Your task to perform on an android device: turn on airplane mode Image 0: 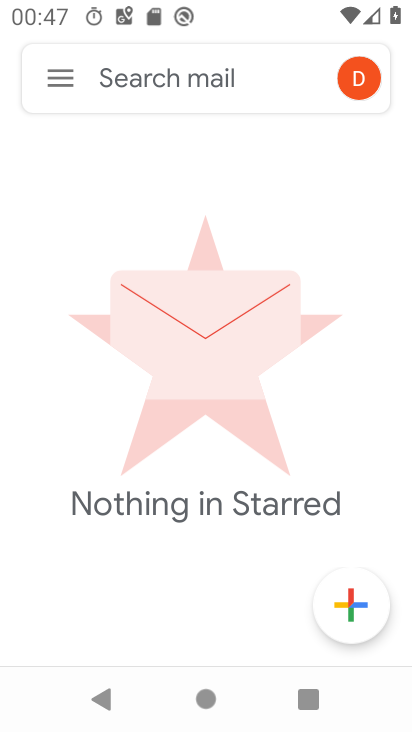
Step 0: press back button
Your task to perform on an android device: turn on airplane mode Image 1: 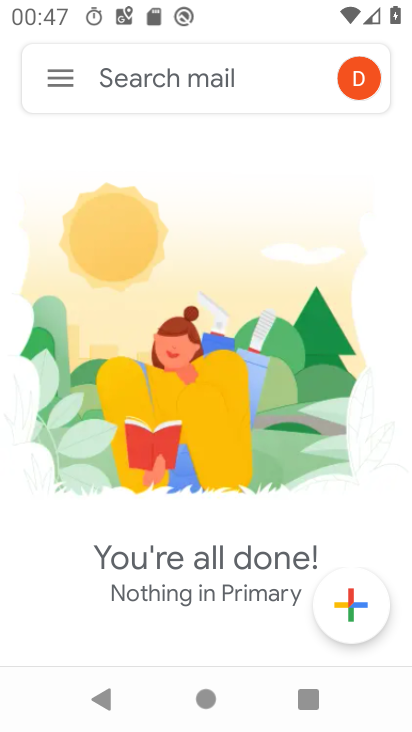
Step 1: press home button
Your task to perform on an android device: turn on airplane mode Image 2: 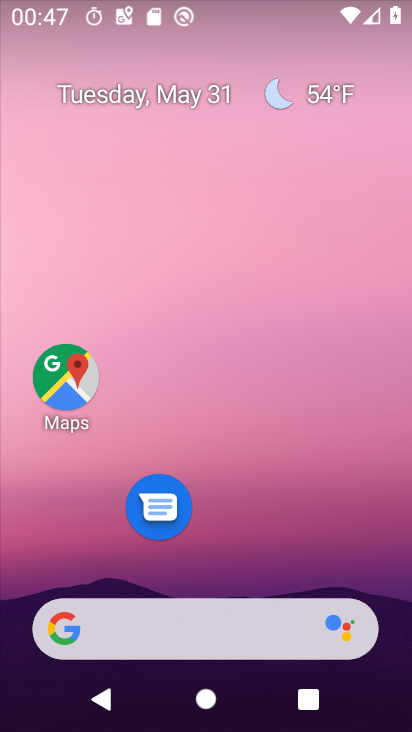
Step 2: drag from (247, 542) to (213, 46)
Your task to perform on an android device: turn on airplane mode Image 3: 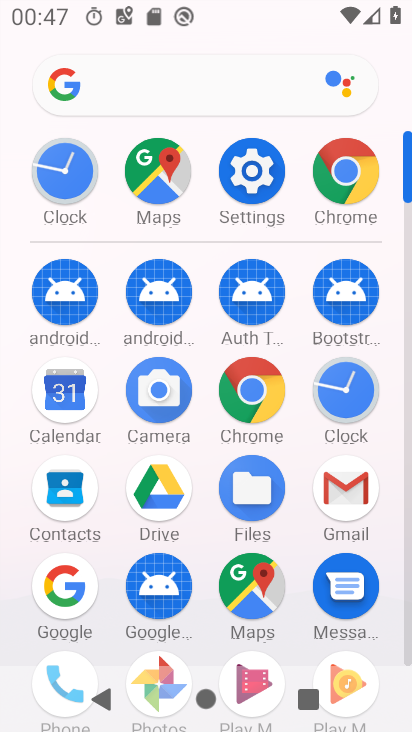
Step 3: drag from (284, 546) to (389, 6)
Your task to perform on an android device: turn on airplane mode Image 4: 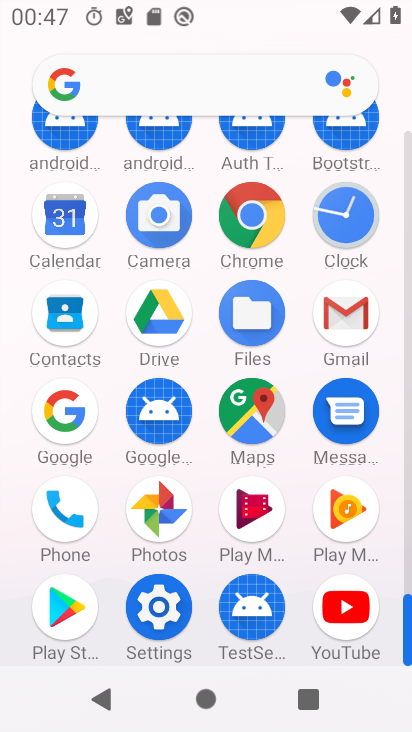
Step 4: click (161, 598)
Your task to perform on an android device: turn on airplane mode Image 5: 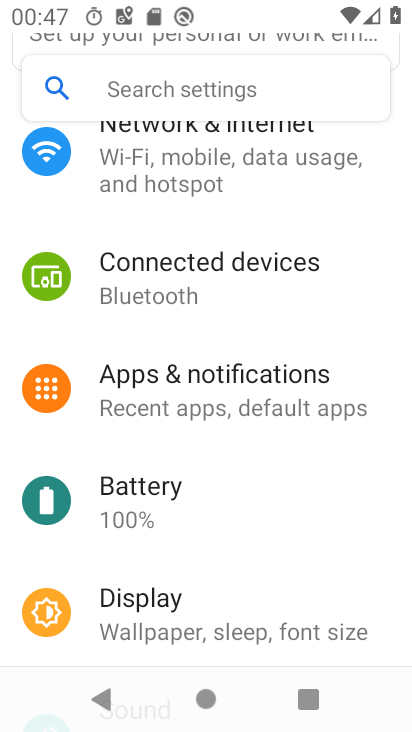
Step 5: click (146, 602)
Your task to perform on an android device: turn on airplane mode Image 6: 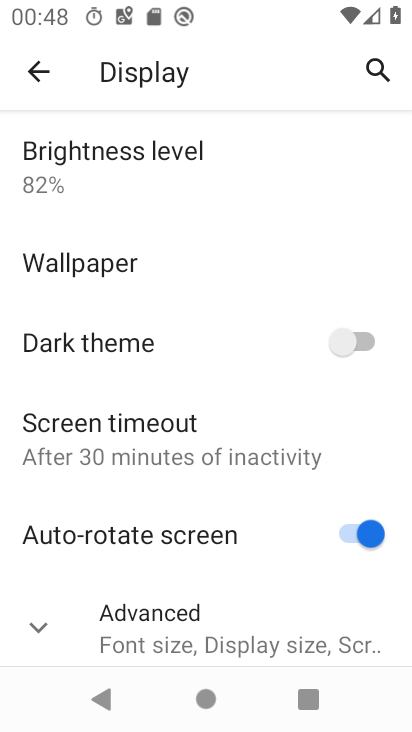
Step 6: click (29, 64)
Your task to perform on an android device: turn on airplane mode Image 7: 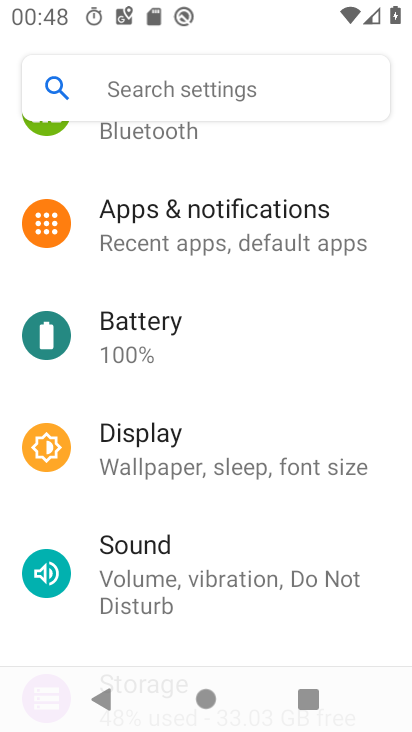
Step 7: click (28, 63)
Your task to perform on an android device: turn on airplane mode Image 8: 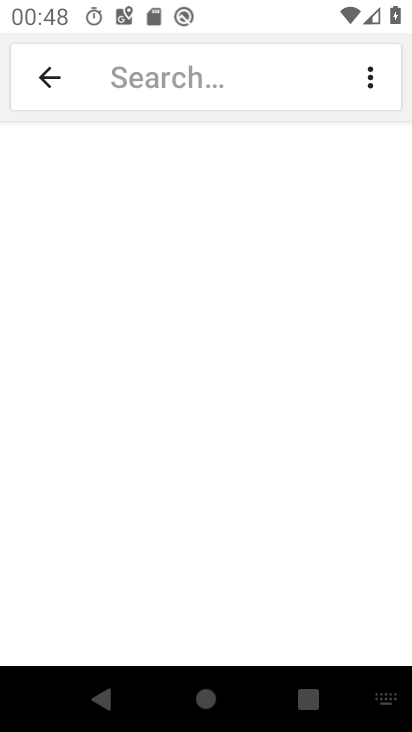
Step 8: click (48, 76)
Your task to perform on an android device: turn on airplane mode Image 9: 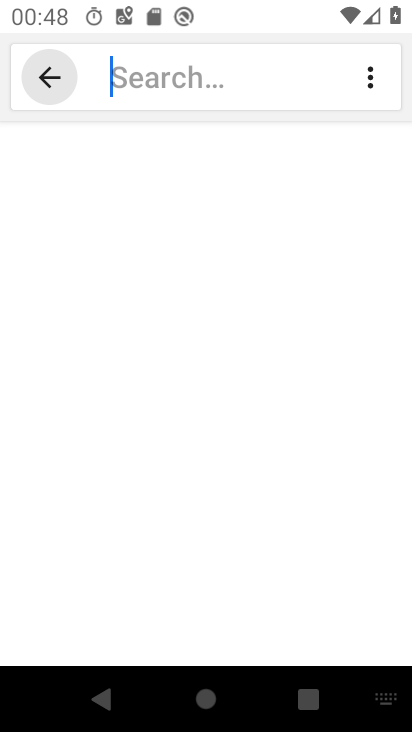
Step 9: click (48, 76)
Your task to perform on an android device: turn on airplane mode Image 10: 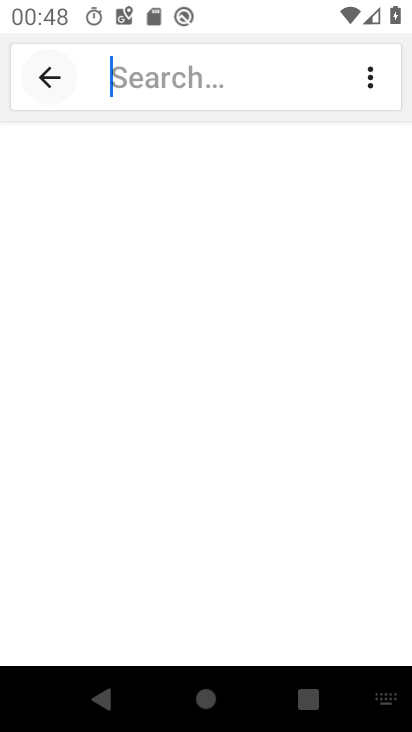
Step 10: click (48, 76)
Your task to perform on an android device: turn on airplane mode Image 11: 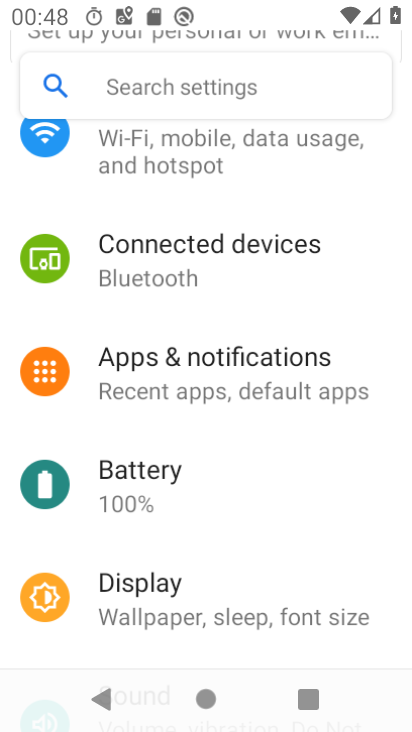
Step 11: click (48, 76)
Your task to perform on an android device: turn on airplane mode Image 12: 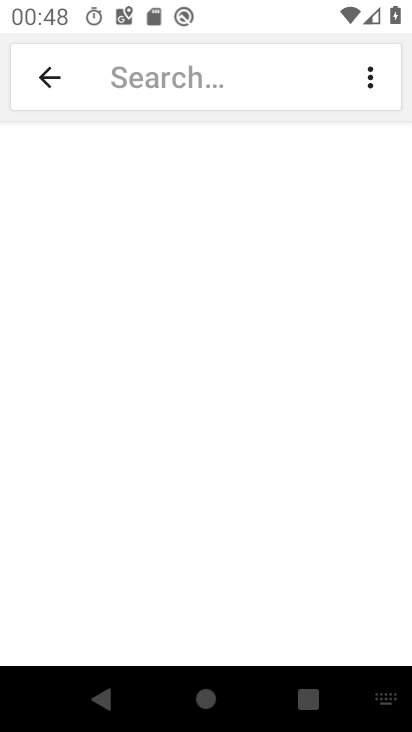
Step 12: click (37, 68)
Your task to perform on an android device: turn on airplane mode Image 13: 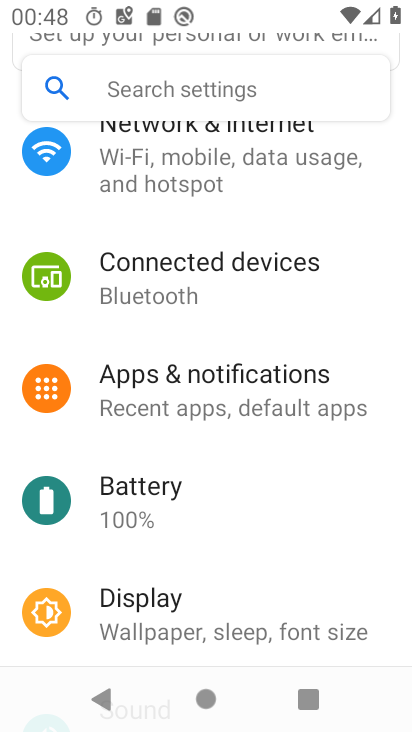
Step 13: drag from (159, 192) to (187, 318)
Your task to perform on an android device: turn on airplane mode Image 14: 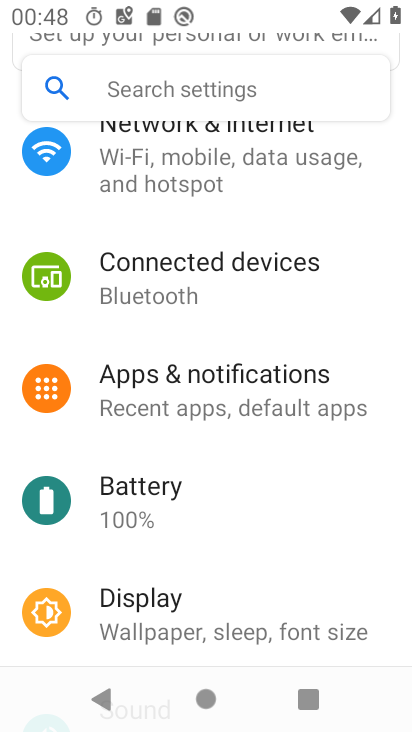
Step 14: click (195, 144)
Your task to perform on an android device: turn on airplane mode Image 15: 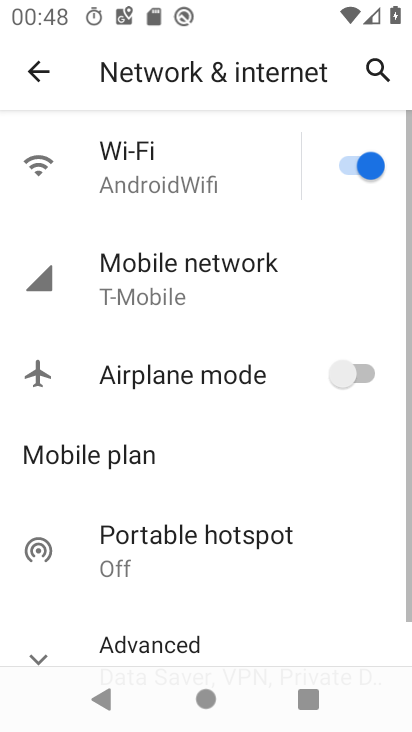
Step 15: click (194, 145)
Your task to perform on an android device: turn on airplane mode Image 16: 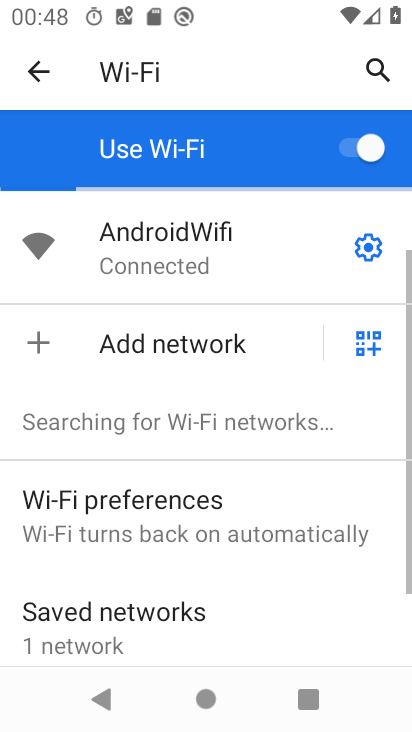
Step 16: click (348, 376)
Your task to perform on an android device: turn on airplane mode Image 17: 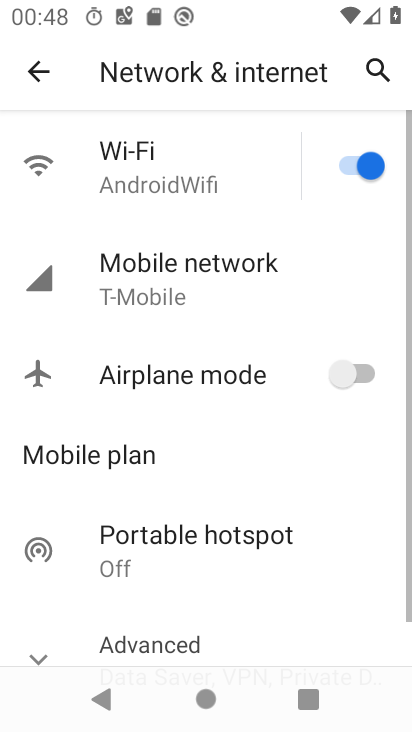
Step 17: click (28, 73)
Your task to perform on an android device: turn on airplane mode Image 18: 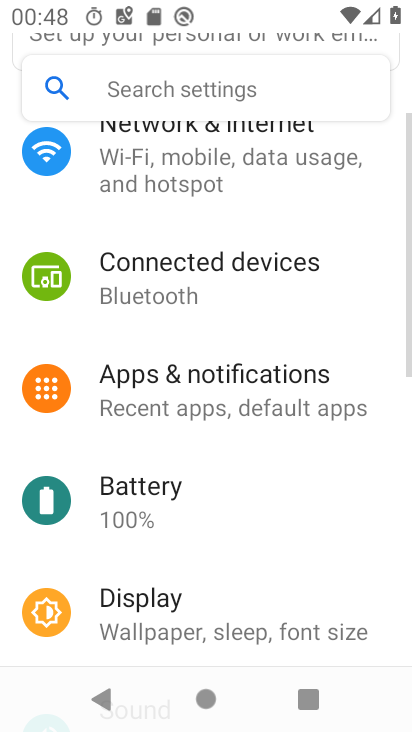
Step 18: click (350, 381)
Your task to perform on an android device: turn on airplane mode Image 19: 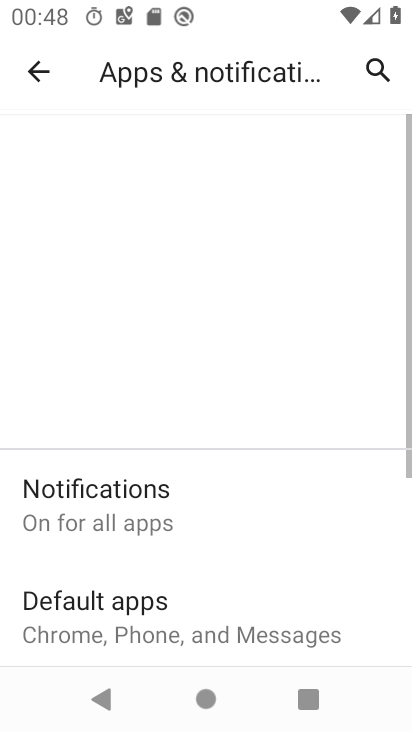
Step 19: click (198, 165)
Your task to perform on an android device: turn on airplane mode Image 20: 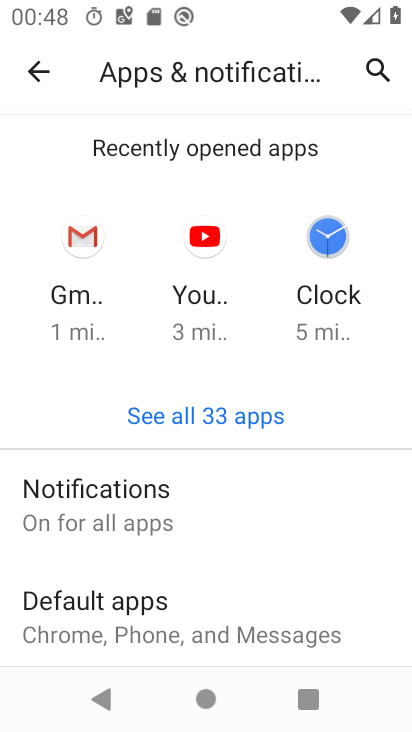
Step 20: click (28, 66)
Your task to perform on an android device: turn on airplane mode Image 21: 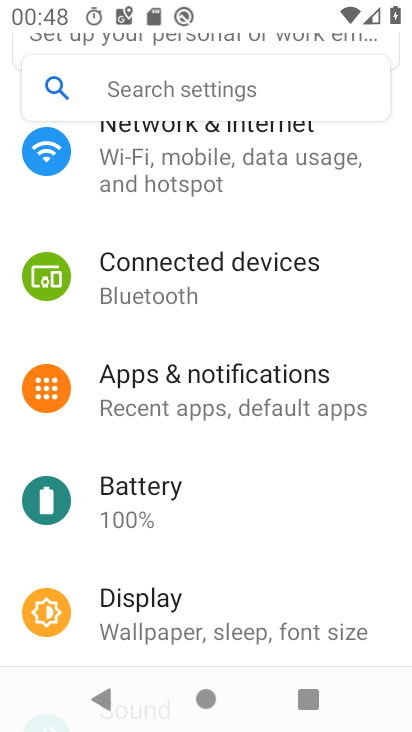
Step 21: click (243, 149)
Your task to perform on an android device: turn on airplane mode Image 22: 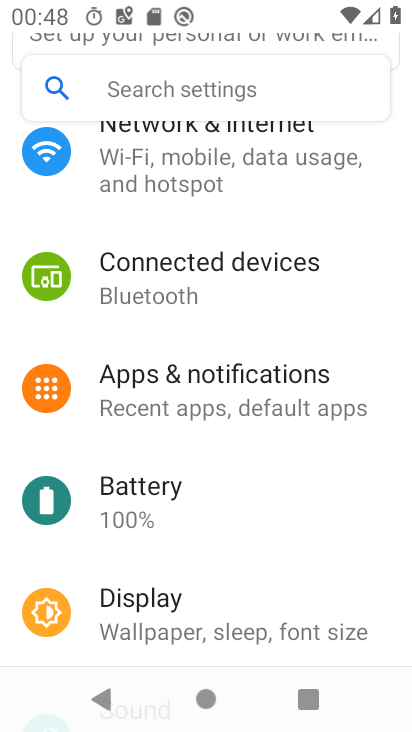
Step 22: click (243, 149)
Your task to perform on an android device: turn on airplane mode Image 23: 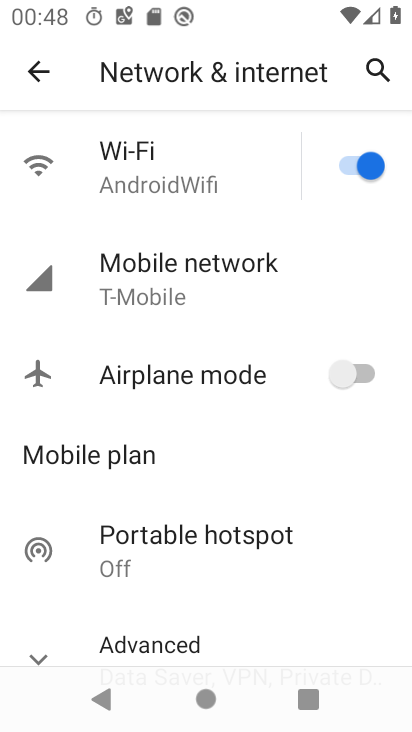
Step 23: click (348, 371)
Your task to perform on an android device: turn on airplane mode Image 24: 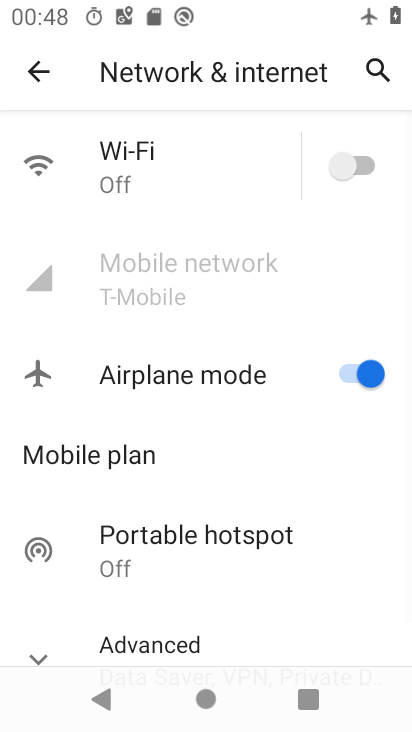
Step 24: task complete